Your task to perform on an android device: add a label to a message in the gmail app Image 0: 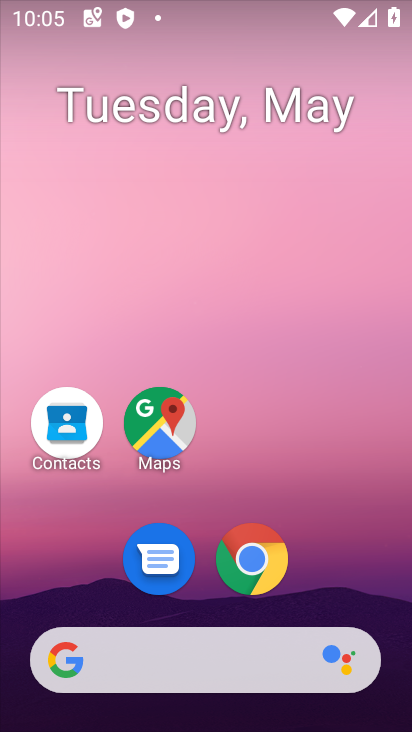
Step 0: drag from (374, 576) to (361, 124)
Your task to perform on an android device: add a label to a message in the gmail app Image 1: 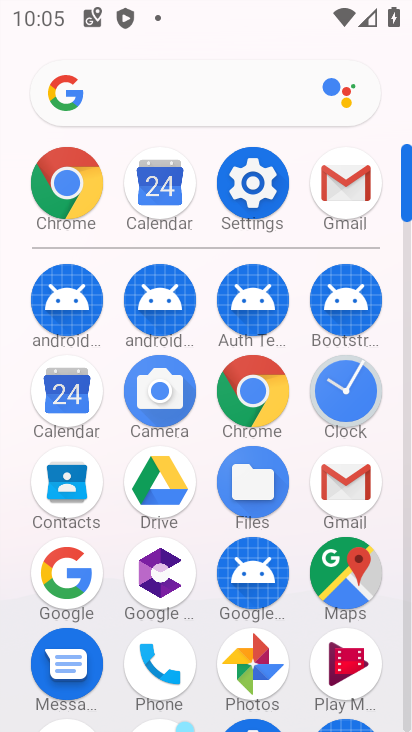
Step 1: click (350, 223)
Your task to perform on an android device: add a label to a message in the gmail app Image 2: 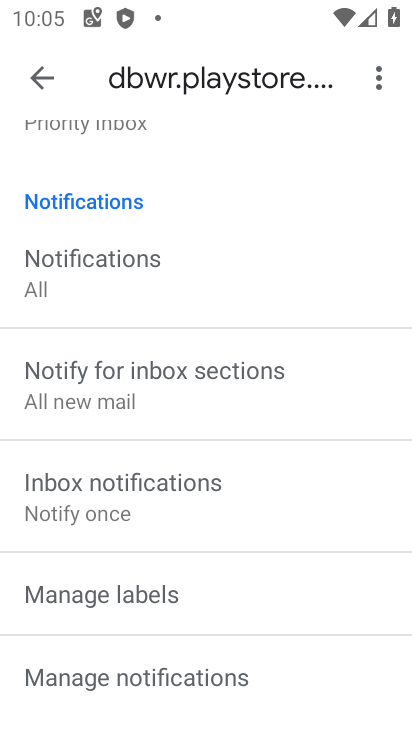
Step 2: task complete